Your task to perform on an android device: What is the recent news? Image 0: 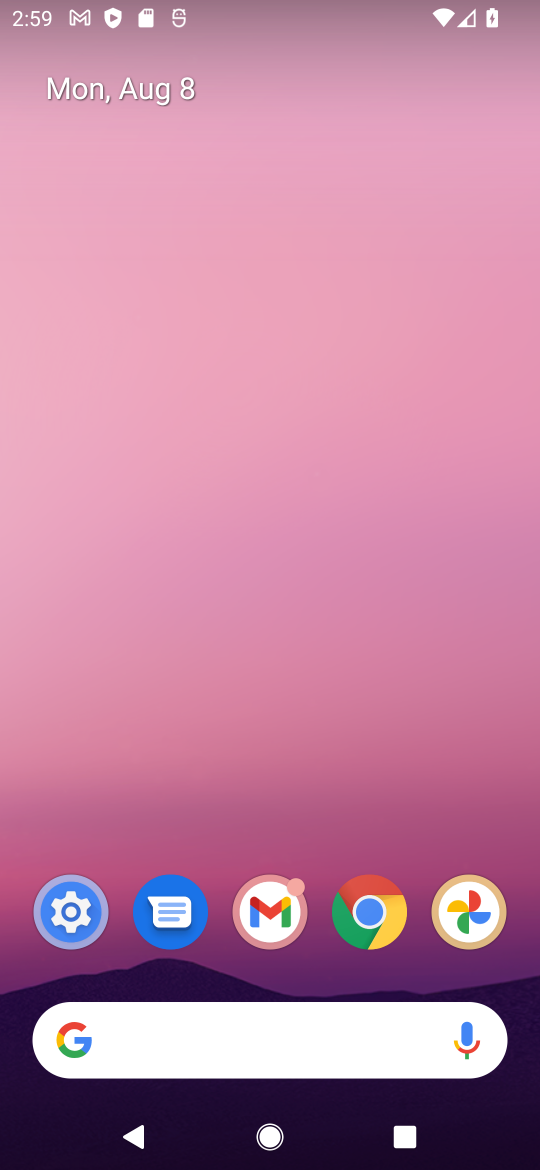
Step 0: click (288, 1054)
Your task to perform on an android device: What is the recent news? Image 1: 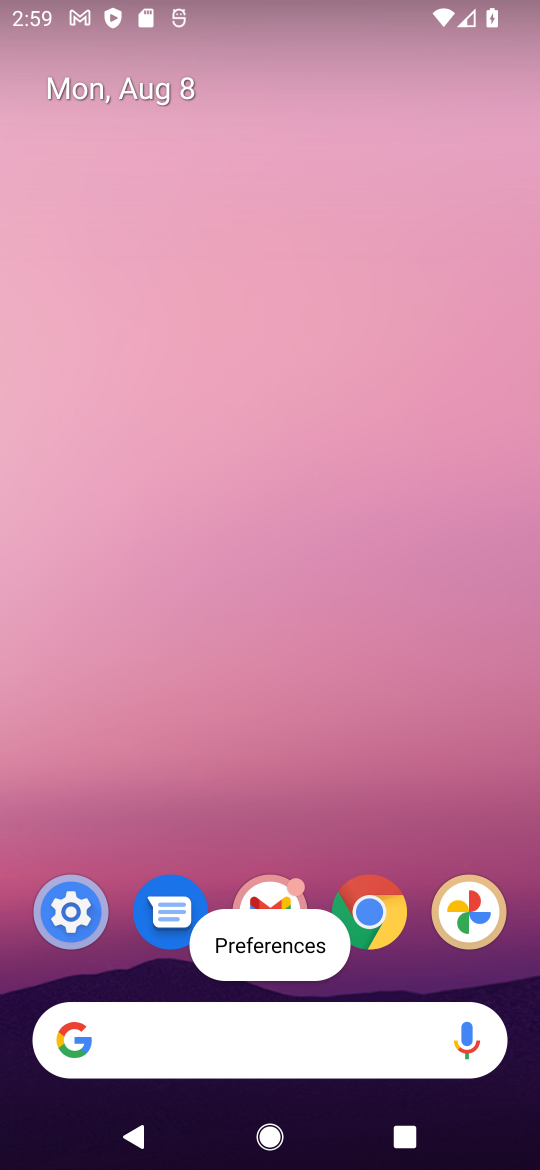
Step 1: click (171, 1038)
Your task to perform on an android device: What is the recent news? Image 2: 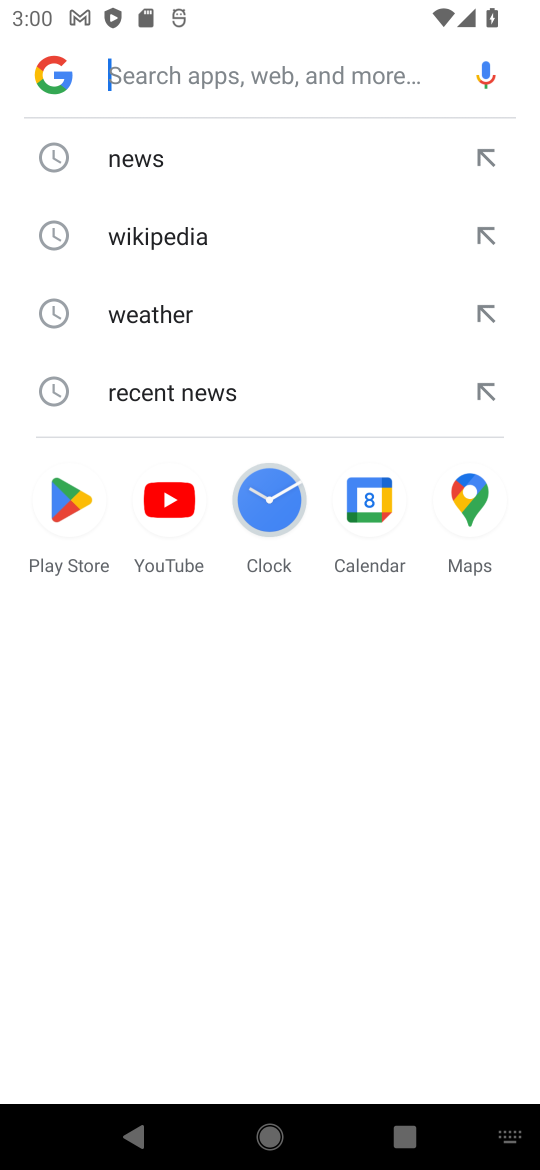
Step 2: click (117, 178)
Your task to perform on an android device: What is the recent news? Image 3: 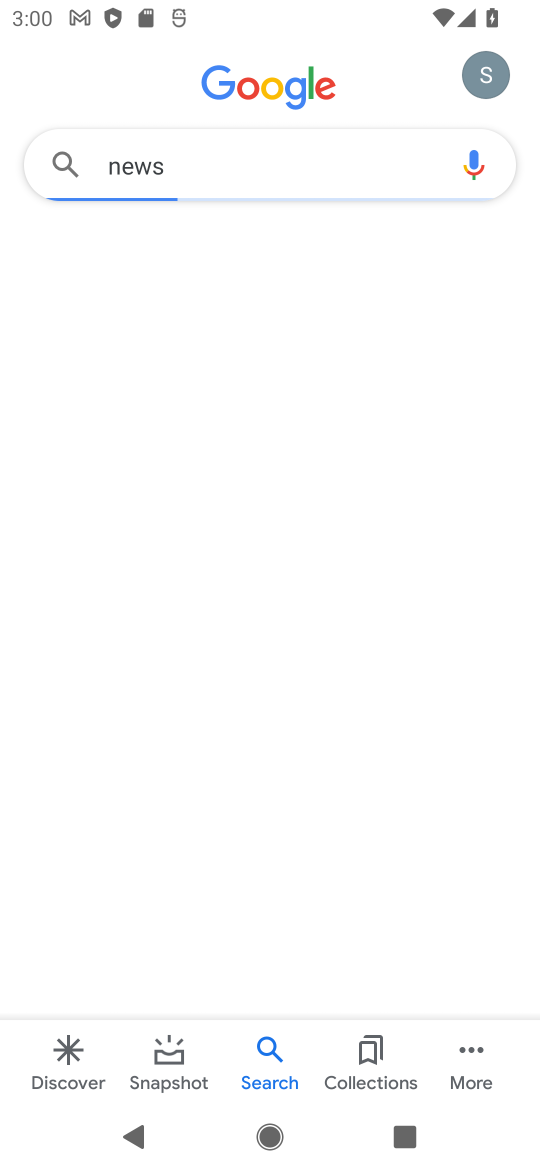
Step 3: task complete